Your task to perform on an android device: Open Youtube and go to the subscriptions tab Image 0: 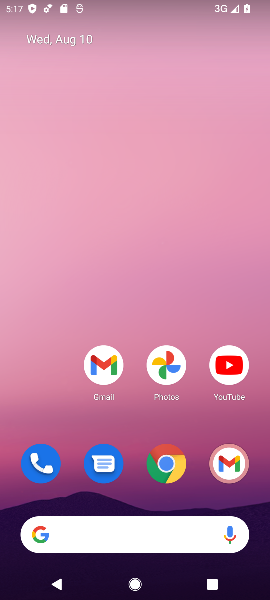
Step 0: click (231, 369)
Your task to perform on an android device: Open Youtube and go to the subscriptions tab Image 1: 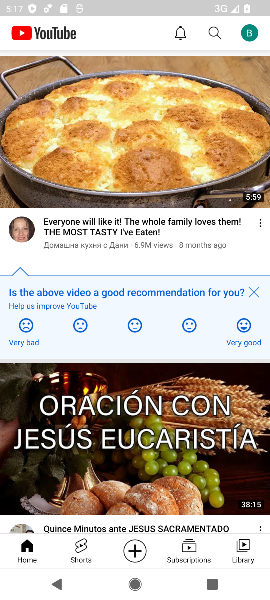
Step 1: click (178, 540)
Your task to perform on an android device: Open Youtube and go to the subscriptions tab Image 2: 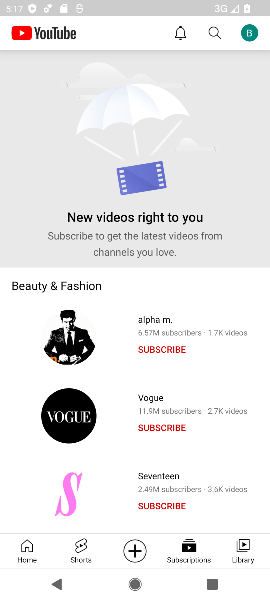
Step 2: task complete